Your task to perform on an android device: Open Chrome and go to the settings page Image 0: 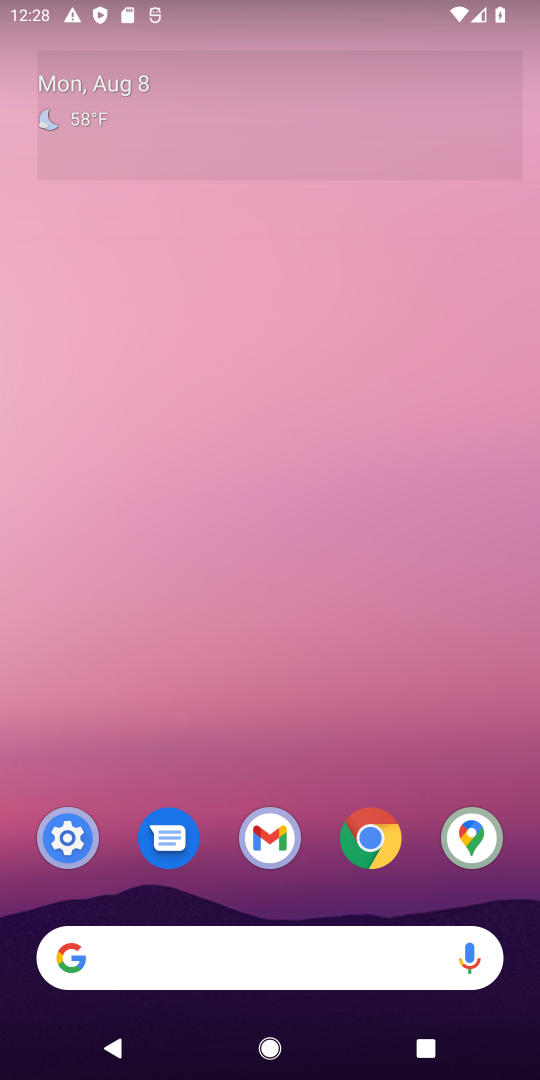
Step 0: press home button
Your task to perform on an android device: Open Chrome and go to the settings page Image 1: 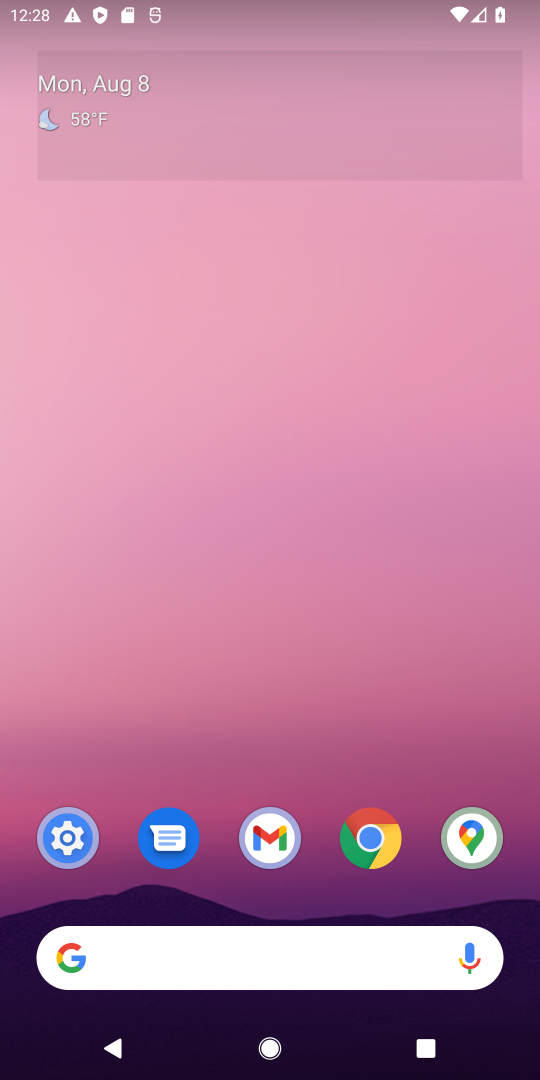
Step 1: click (372, 831)
Your task to perform on an android device: Open Chrome and go to the settings page Image 2: 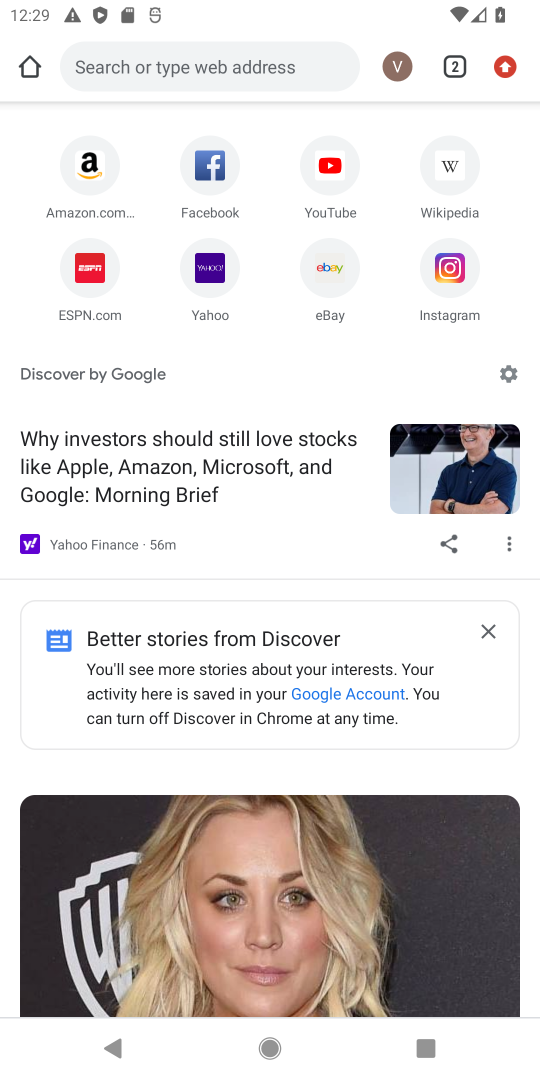
Step 2: task complete